Your task to perform on an android device: Open Google Maps Image 0: 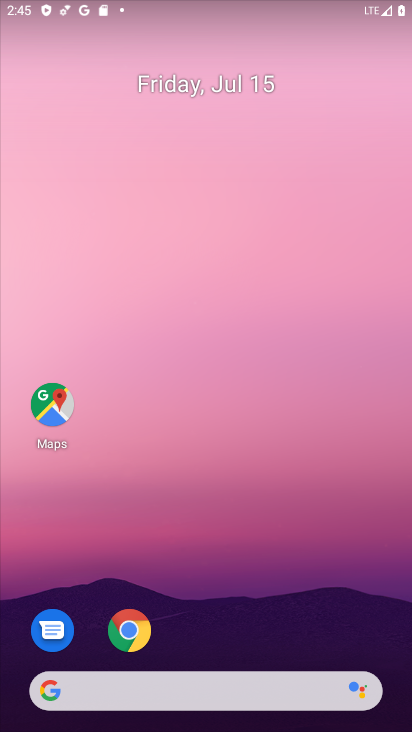
Step 0: click (51, 413)
Your task to perform on an android device: Open Google Maps Image 1: 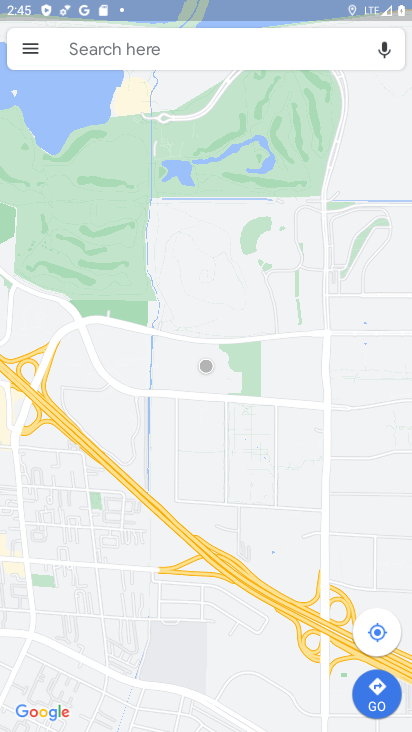
Step 1: task complete